Your task to perform on an android device: Open my contact list Image 0: 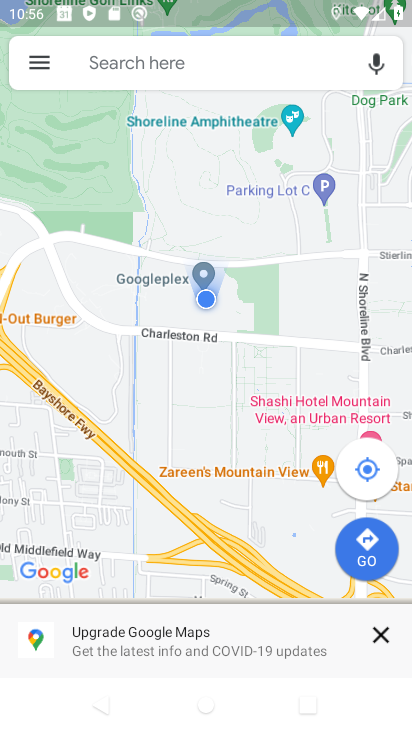
Step 0: press home button
Your task to perform on an android device: Open my contact list Image 1: 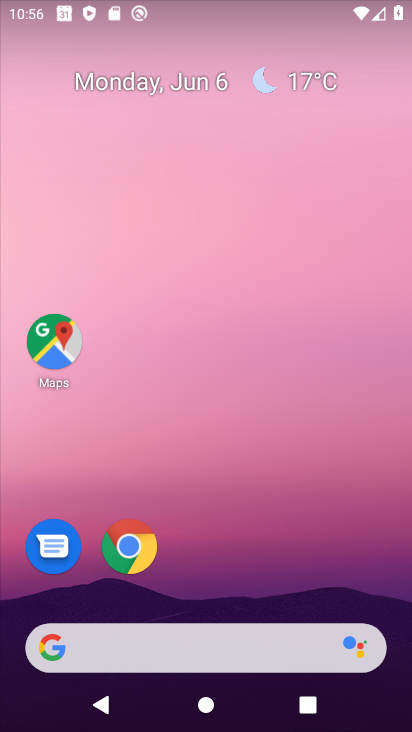
Step 1: drag from (291, 518) to (241, 10)
Your task to perform on an android device: Open my contact list Image 2: 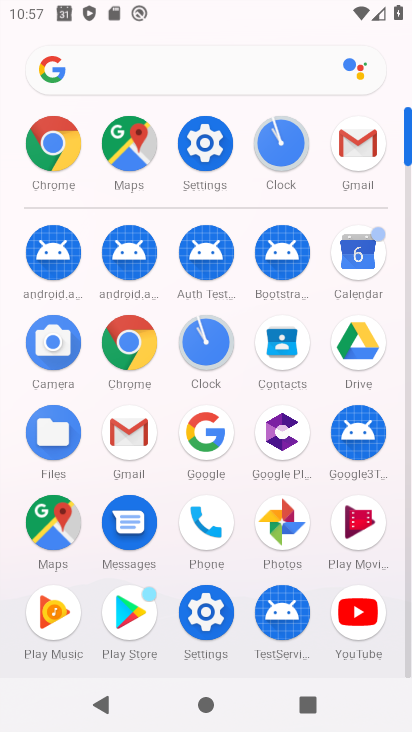
Step 2: click (283, 336)
Your task to perform on an android device: Open my contact list Image 3: 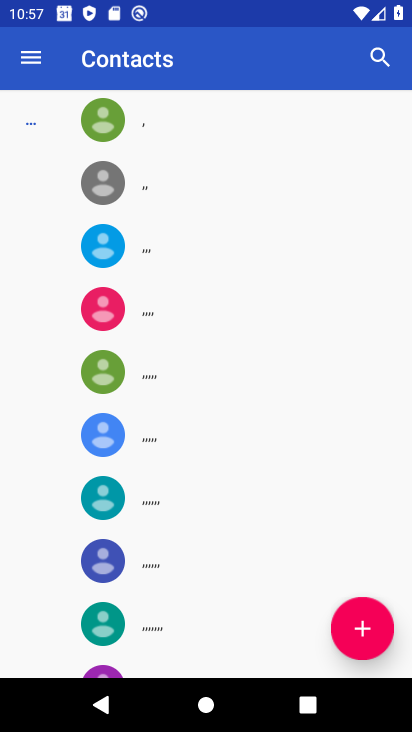
Step 3: task complete